Your task to perform on an android device: Show the shopping cart on bestbuy. Image 0: 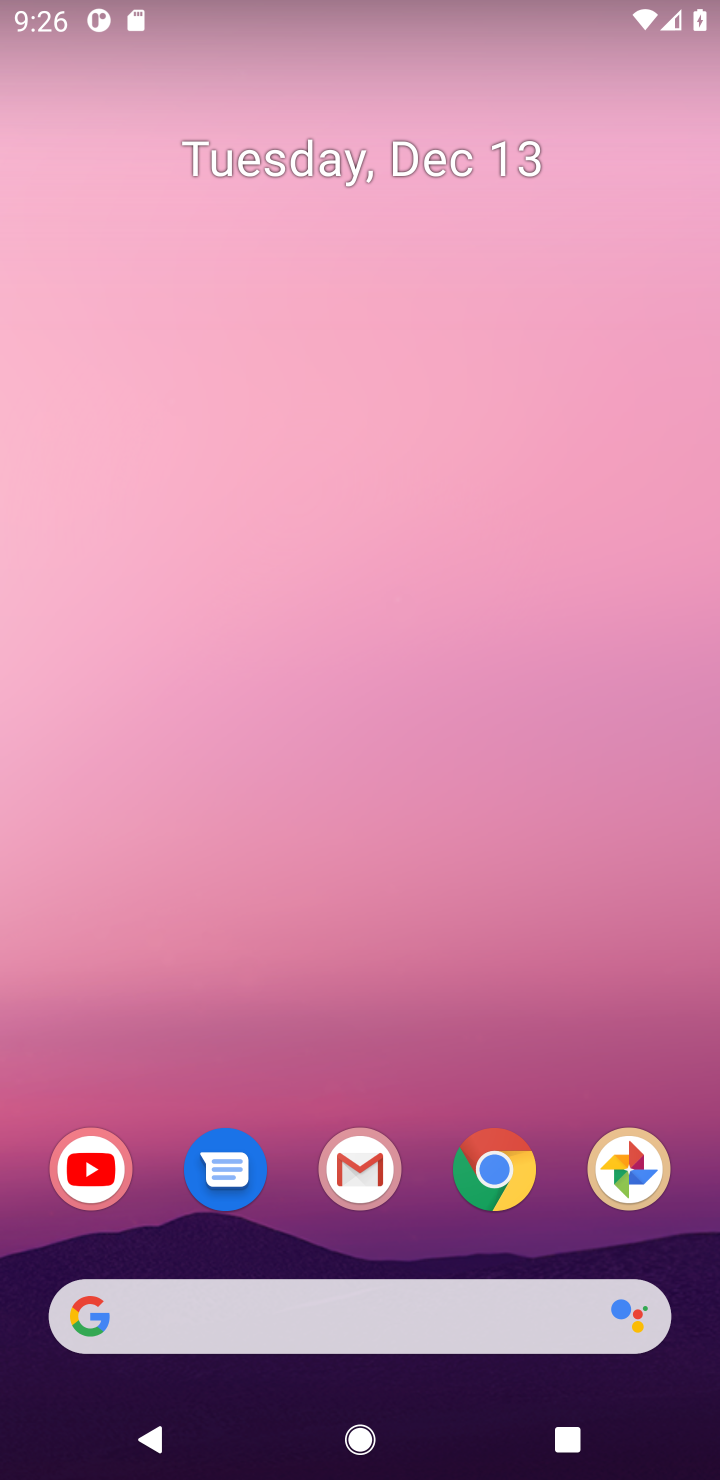
Step 0: click (501, 1205)
Your task to perform on an android device: Show the shopping cart on bestbuy. Image 1: 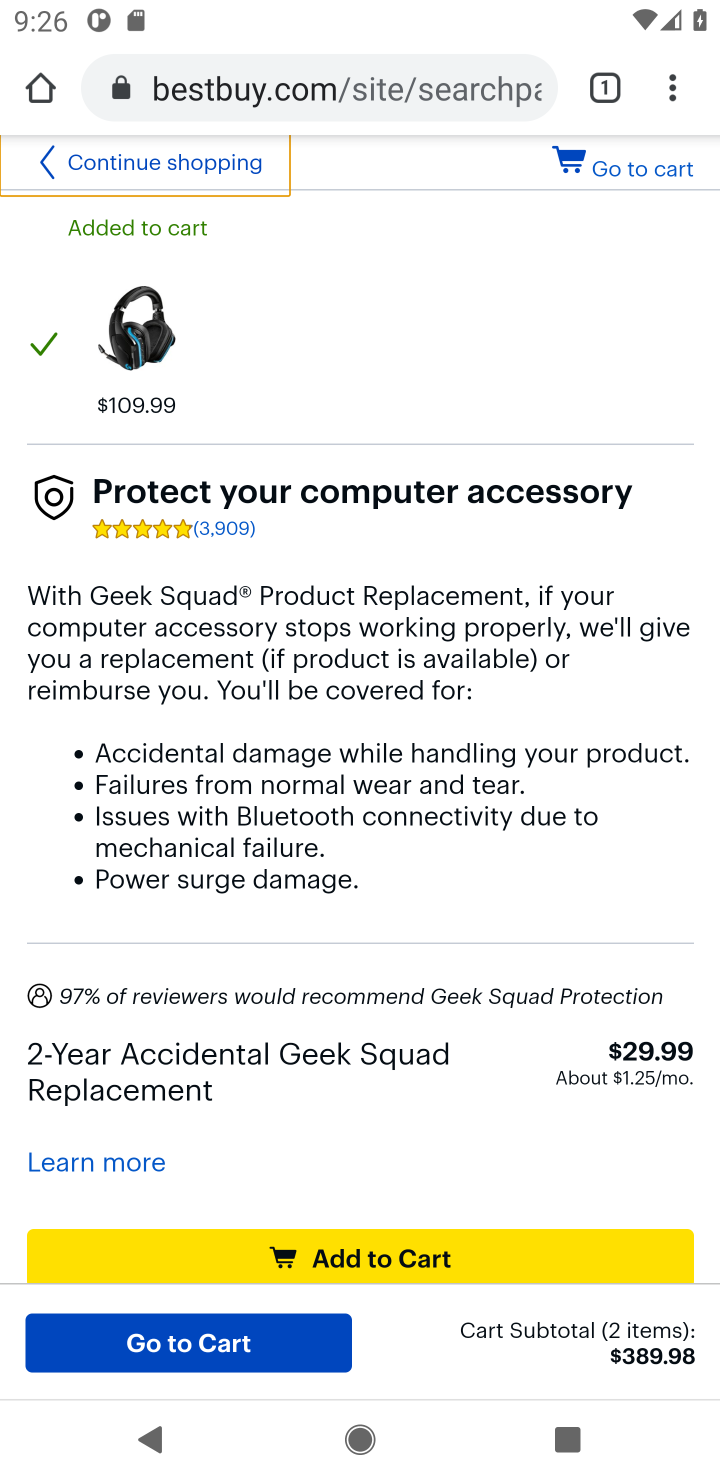
Step 1: task complete